Your task to perform on an android device: Open Chrome and go to the settings page Image 0: 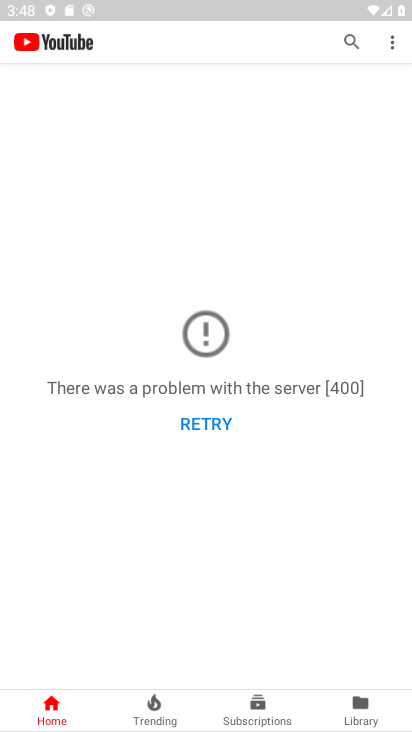
Step 0: press home button
Your task to perform on an android device: Open Chrome and go to the settings page Image 1: 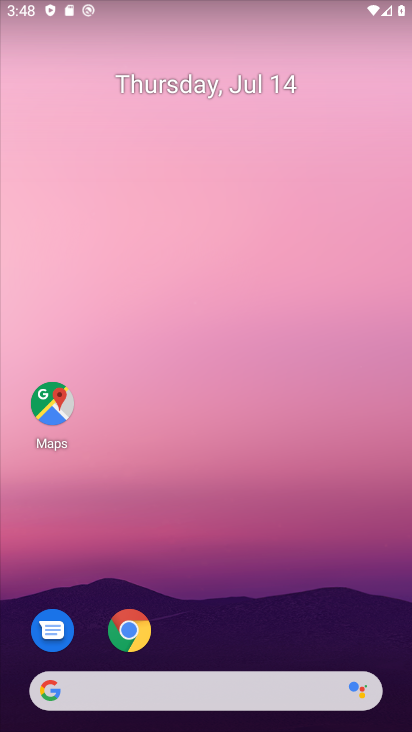
Step 1: drag from (344, 613) to (358, 198)
Your task to perform on an android device: Open Chrome and go to the settings page Image 2: 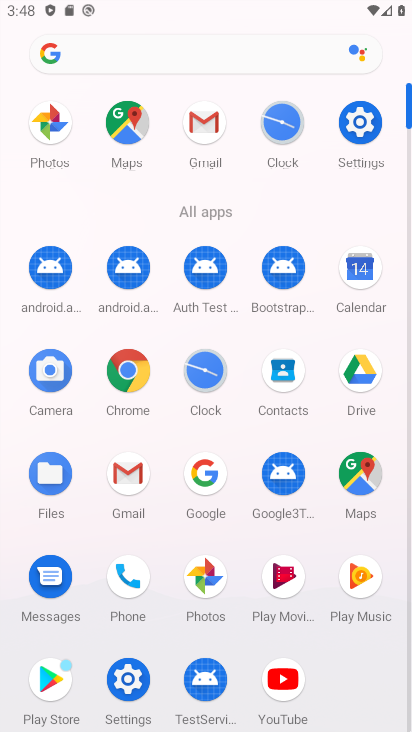
Step 2: click (142, 382)
Your task to perform on an android device: Open Chrome and go to the settings page Image 3: 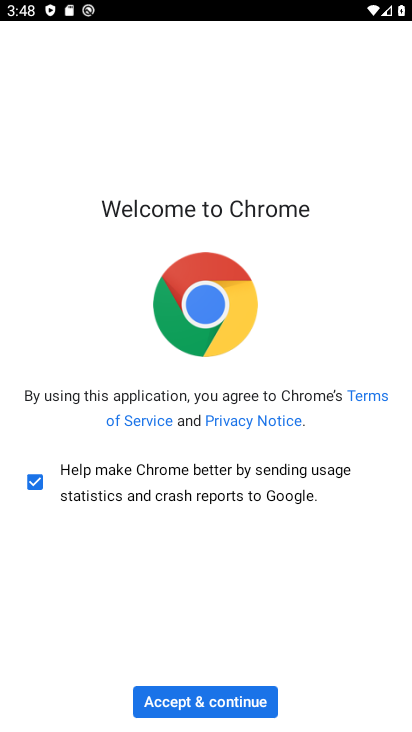
Step 3: click (216, 700)
Your task to perform on an android device: Open Chrome and go to the settings page Image 4: 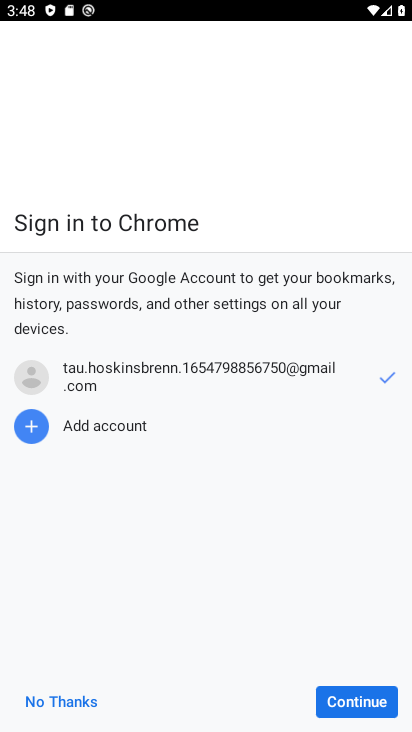
Step 4: click (320, 701)
Your task to perform on an android device: Open Chrome and go to the settings page Image 5: 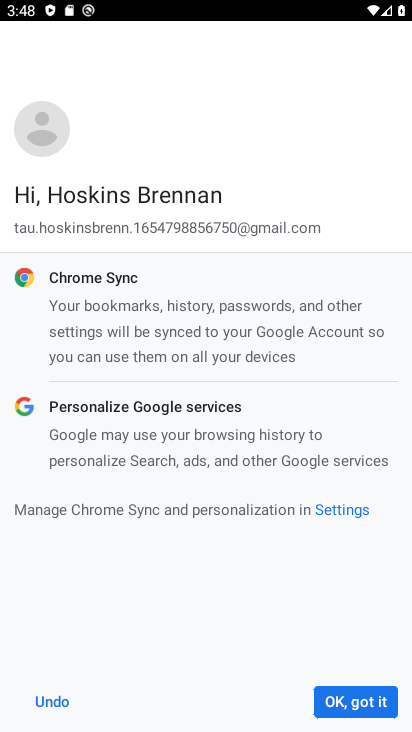
Step 5: click (323, 701)
Your task to perform on an android device: Open Chrome and go to the settings page Image 6: 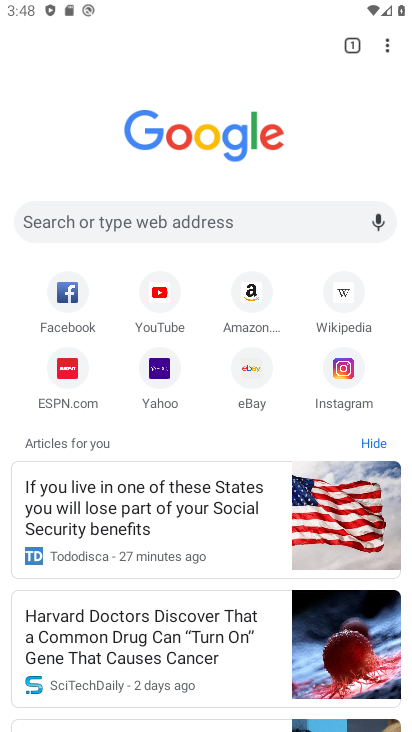
Step 6: click (386, 52)
Your task to perform on an android device: Open Chrome and go to the settings page Image 7: 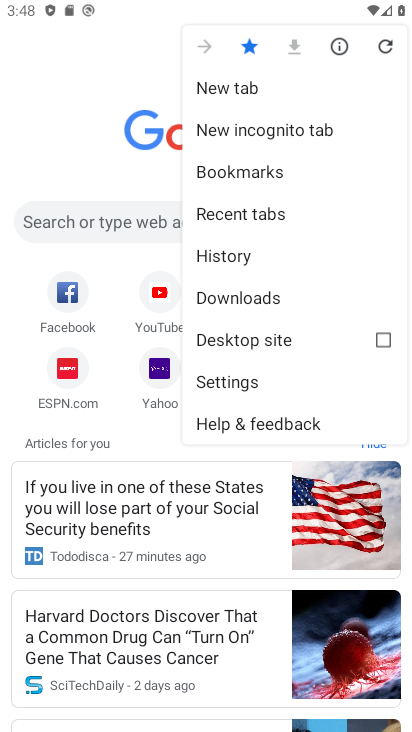
Step 7: click (293, 387)
Your task to perform on an android device: Open Chrome and go to the settings page Image 8: 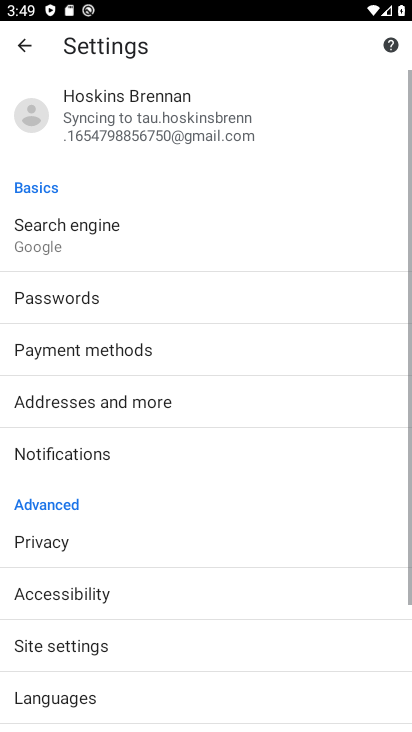
Step 8: task complete